Your task to perform on an android device: turn off improve location accuracy Image 0: 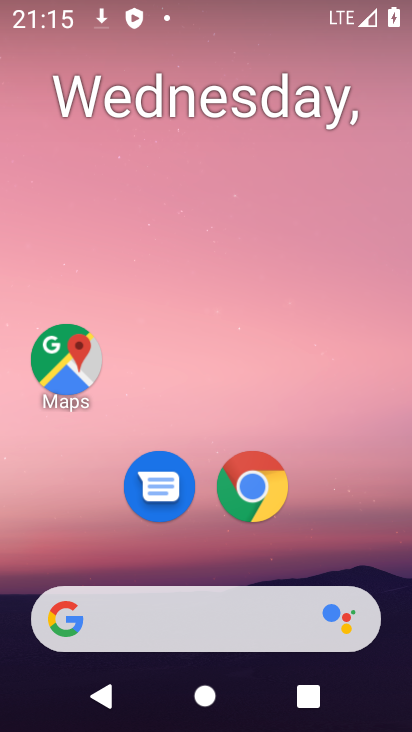
Step 0: drag from (159, 569) to (286, 1)
Your task to perform on an android device: turn off improve location accuracy Image 1: 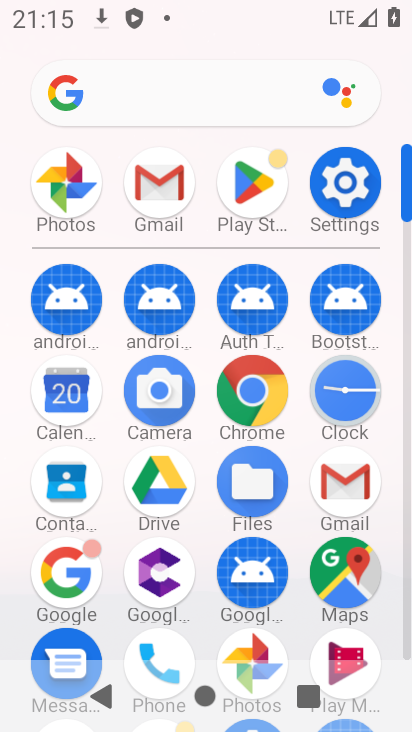
Step 1: click (357, 173)
Your task to perform on an android device: turn off improve location accuracy Image 2: 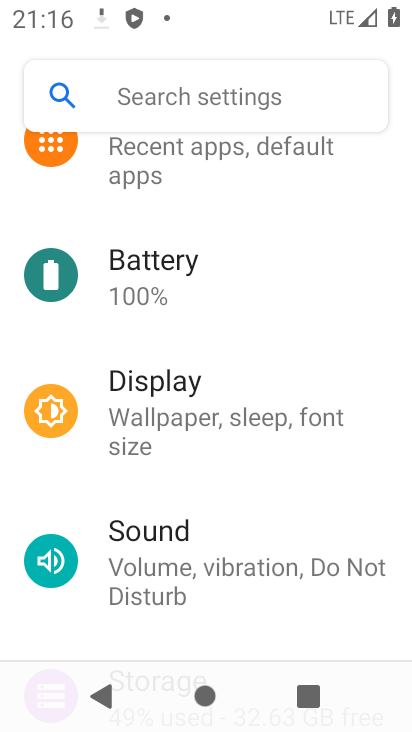
Step 2: drag from (189, 579) to (274, 129)
Your task to perform on an android device: turn off improve location accuracy Image 3: 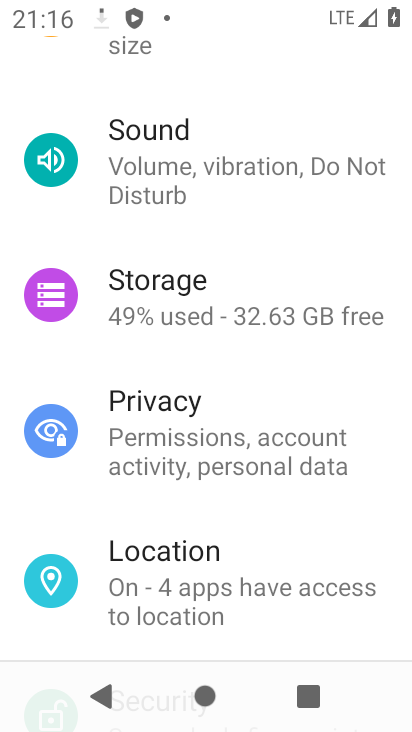
Step 3: click (189, 566)
Your task to perform on an android device: turn off improve location accuracy Image 4: 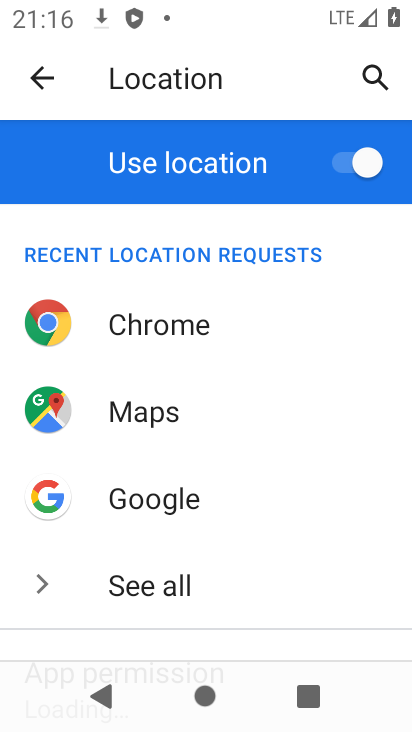
Step 4: drag from (189, 566) to (262, 113)
Your task to perform on an android device: turn off improve location accuracy Image 5: 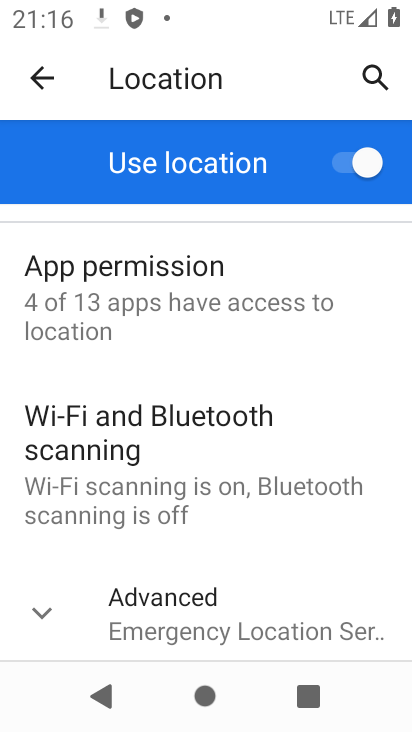
Step 5: click (183, 605)
Your task to perform on an android device: turn off improve location accuracy Image 6: 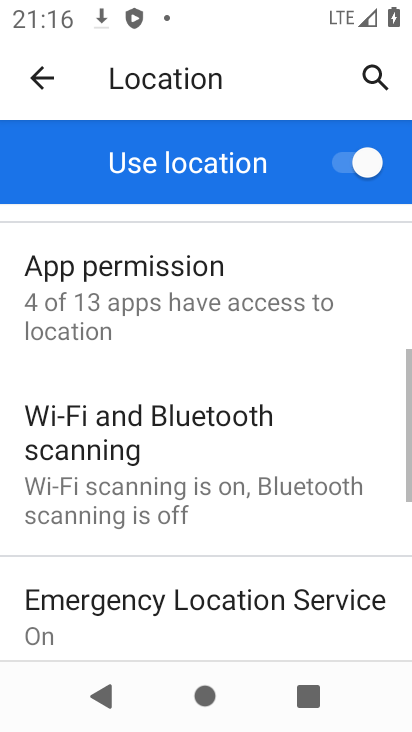
Step 6: drag from (182, 596) to (252, 211)
Your task to perform on an android device: turn off improve location accuracy Image 7: 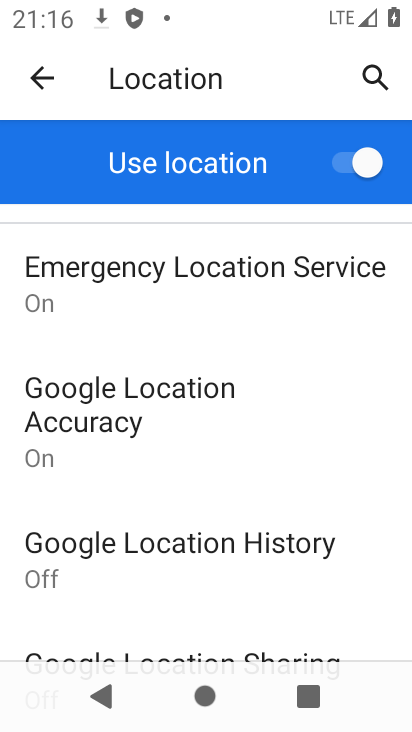
Step 7: click (105, 426)
Your task to perform on an android device: turn off improve location accuracy Image 8: 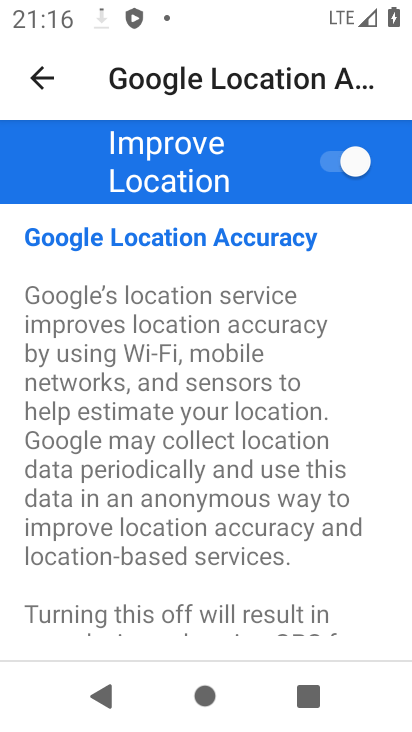
Step 8: click (353, 164)
Your task to perform on an android device: turn off improve location accuracy Image 9: 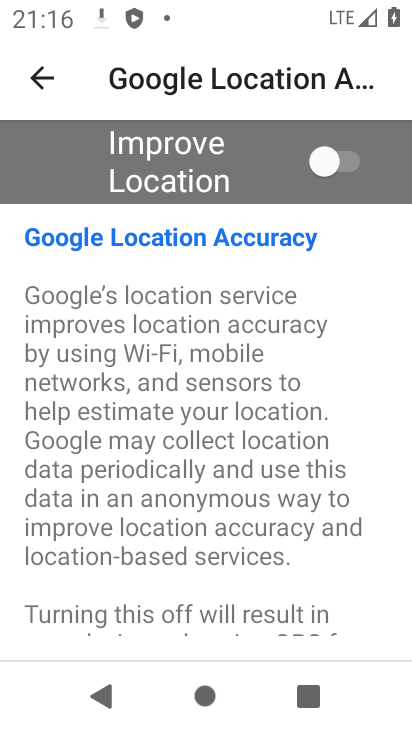
Step 9: task complete